Your task to perform on an android device: Go to eBay Image 0: 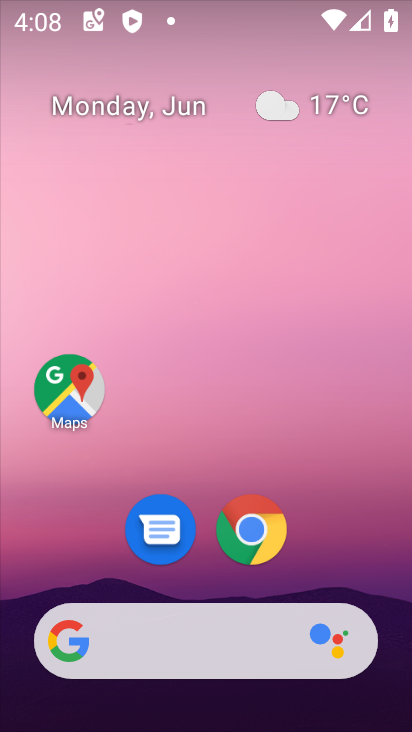
Step 0: click (250, 531)
Your task to perform on an android device: Go to eBay Image 1: 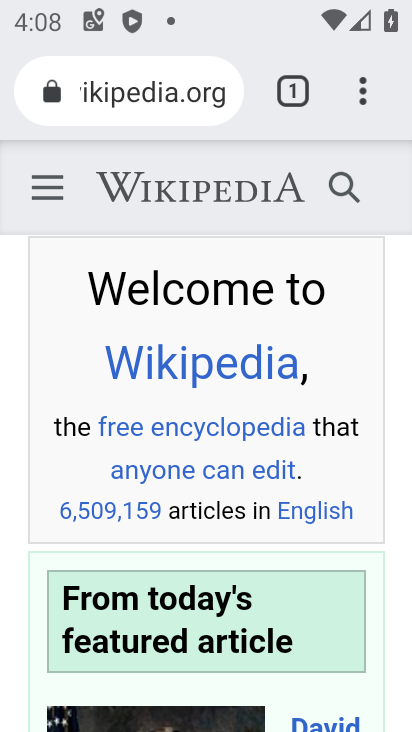
Step 1: click (209, 85)
Your task to perform on an android device: Go to eBay Image 2: 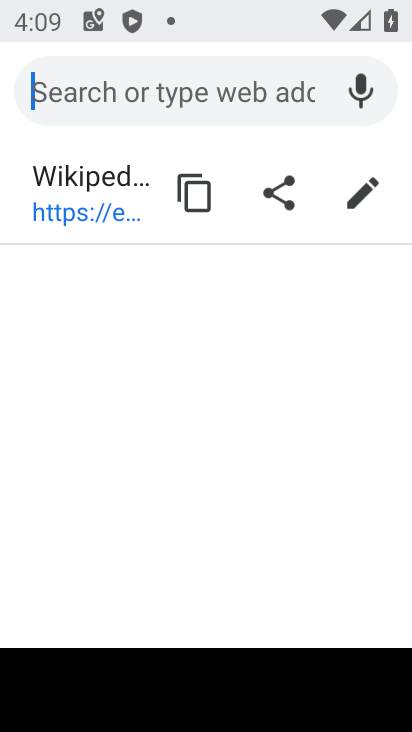
Step 2: type "eBay"
Your task to perform on an android device: Go to eBay Image 3: 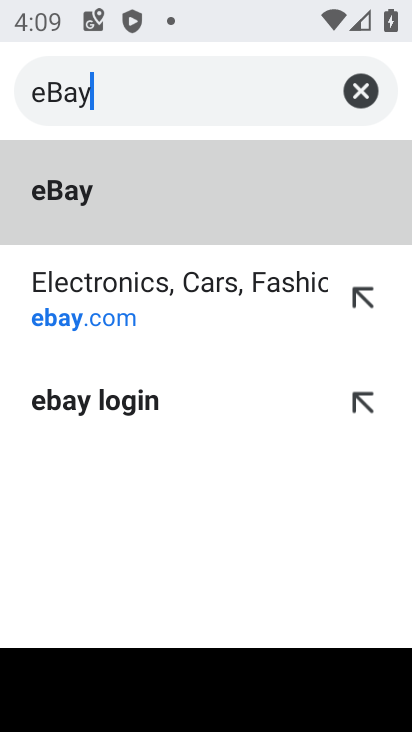
Step 3: click (120, 285)
Your task to perform on an android device: Go to eBay Image 4: 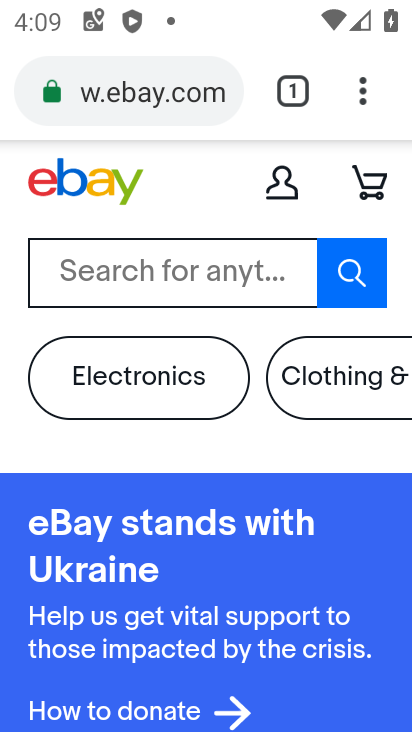
Step 4: task complete